Your task to perform on an android device: Open Yahoo.com Image 0: 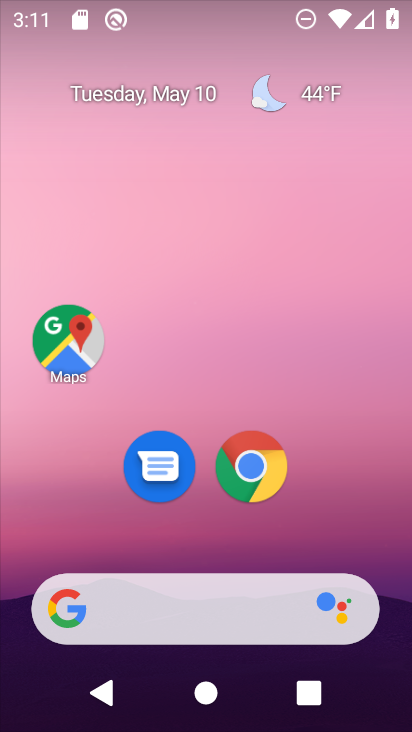
Step 0: click (242, 479)
Your task to perform on an android device: Open Yahoo.com Image 1: 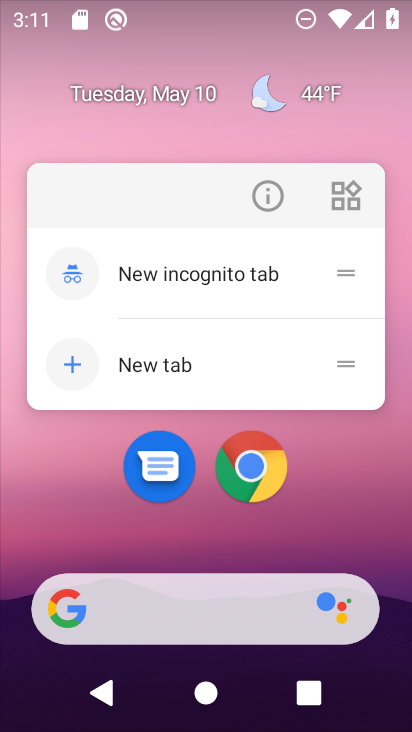
Step 1: click (245, 467)
Your task to perform on an android device: Open Yahoo.com Image 2: 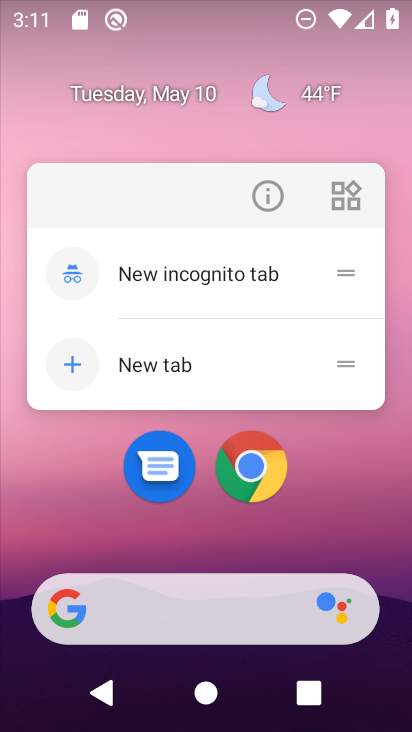
Step 2: click (245, 467)
Your task to perform on an android device: Open Yahoo.com Image 3: 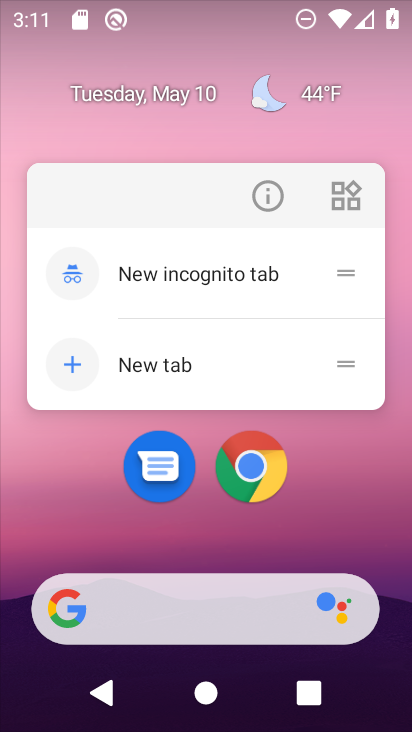
Step 3: click (260, 484)
Your task to perform on an android device: Open Yahoo.com Image 4: 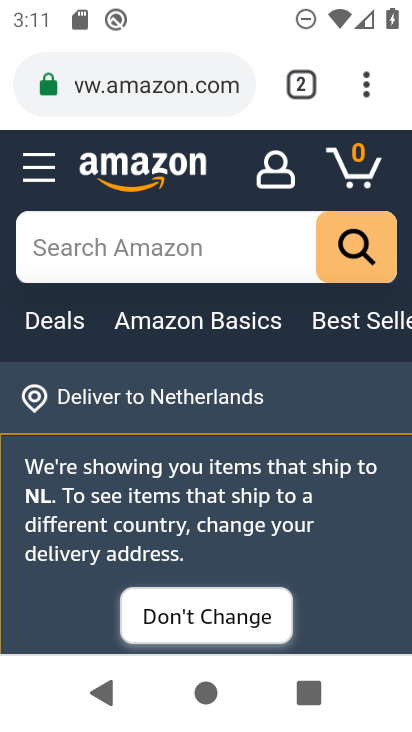
Step 4: click (183, 110)
Your task to perform on an android device: Open Yahoo.com Image 5: 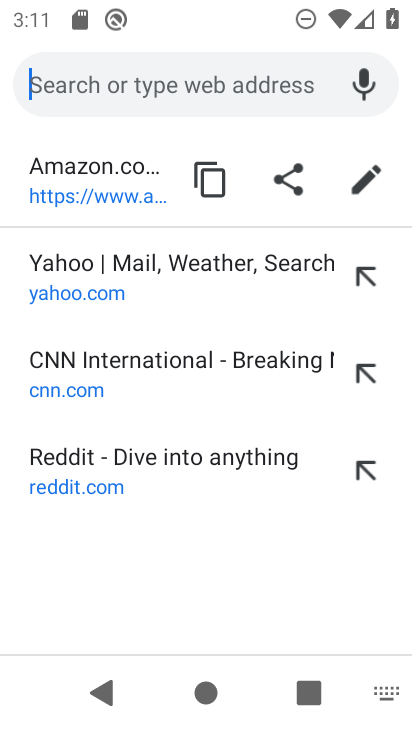
Step 5: click (183, 97)
Your task to perform on an android device: Open Yahoo.com Image 6: 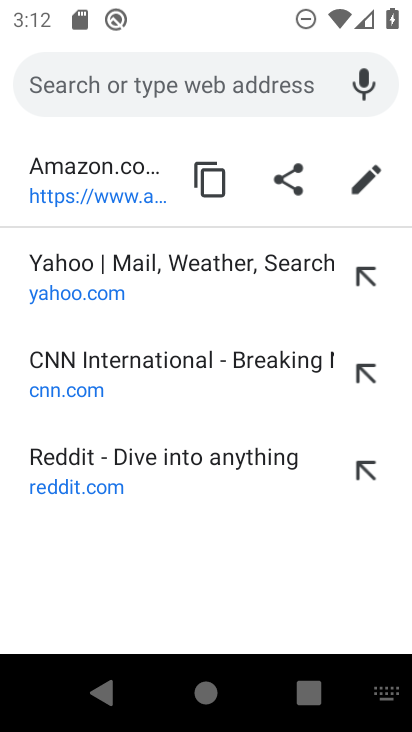
Step 6: type "yahoo.com"
Your task to perform on an android device: Open Yahoo.com Image 7: 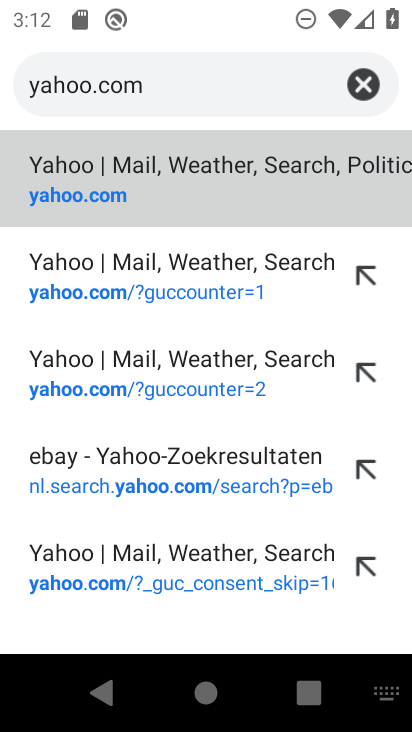
Step 7: click (156, 168)
Your task to perform on an android device: Open Yahoo.com Image 8: 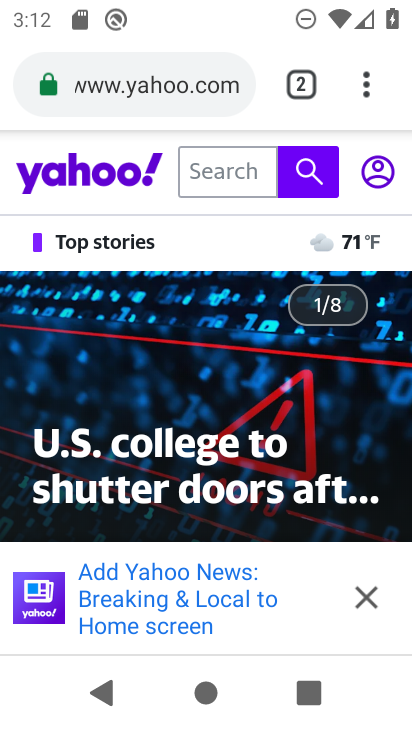
Step 8: task complete